Your task to perform on an android device: toggle location history Image 0: 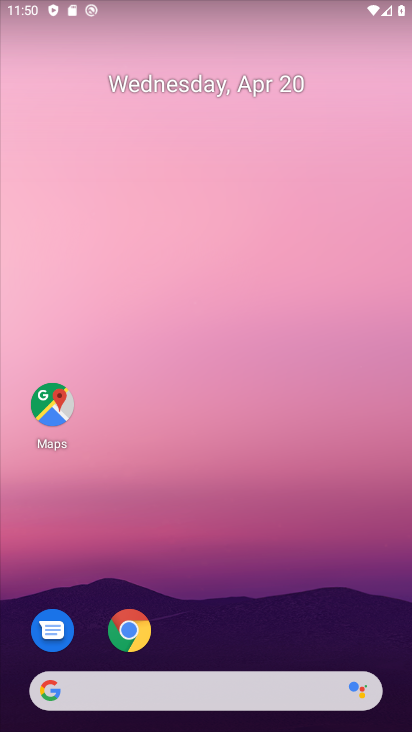
Step 0: drag from (256, 688) to (389, 0)
Your task to perform on an android device: toggle location history Image 1: 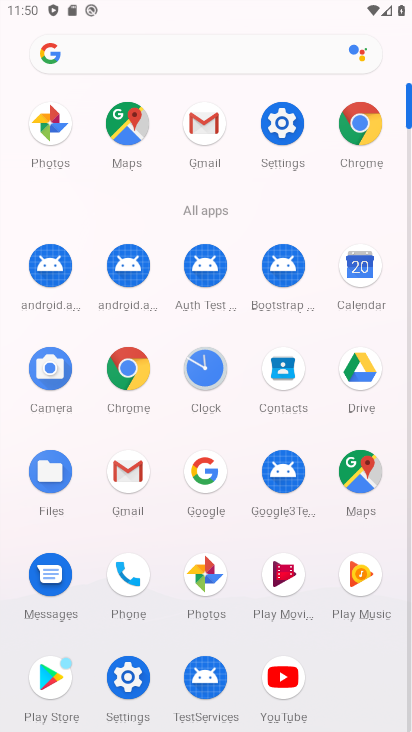
Step 1: click (287, 132)
Your task to perform on an android device: toggle location history Image 2: 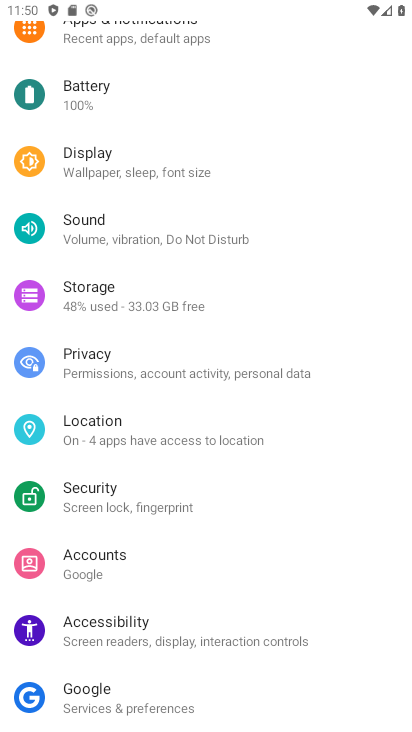
Step 2: click (111, 426)
Your task to perform on an android device: toggle location history Image 3: 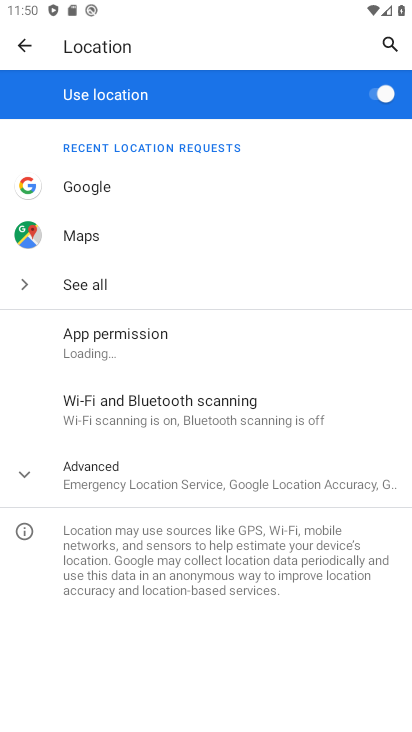
Step 3: click (107, 476)
Your task to perform on an android device: toggle location history Image 4: 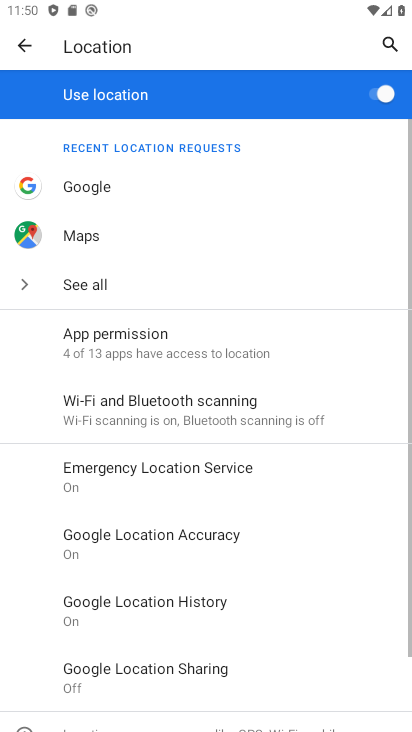
Step 4: click (139, 607)
Your task to perform on an android device: toggle location history Image 5: 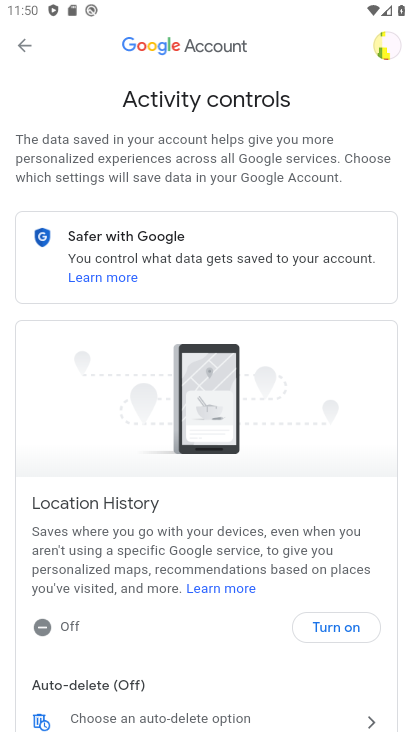
Step 5: click (344, 624)
Your task to perform on an android device: toggle location history Image 6: 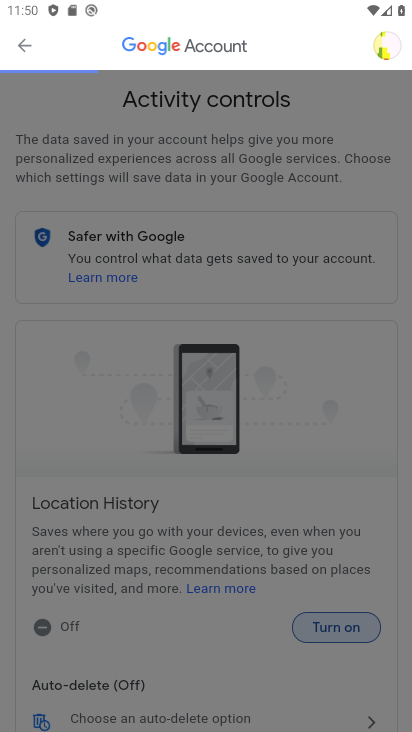
Step 6: click (344, 624)
Your task to perform on an android device: toggle location history Image 7: 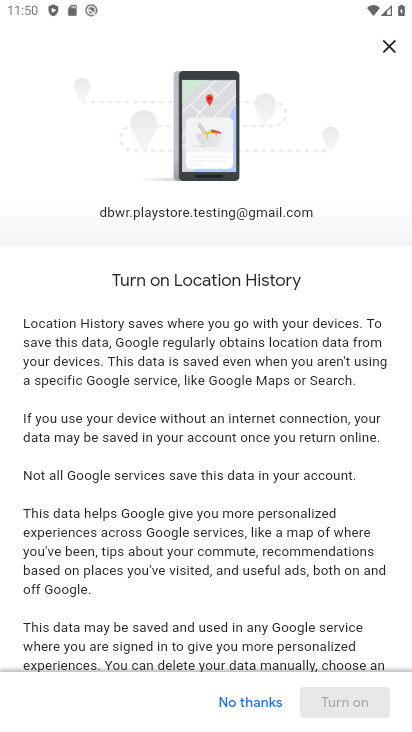
Step 7: drag from (162, 574) to (310, 134)
Your task to perform on an android device: toggle location history Image 8: 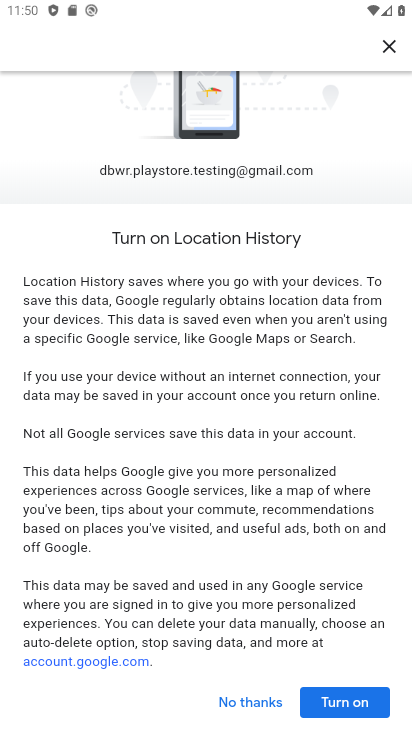
Step 8: click (339, 707)
Your task to perform on an android device: toggle location history Image 9: 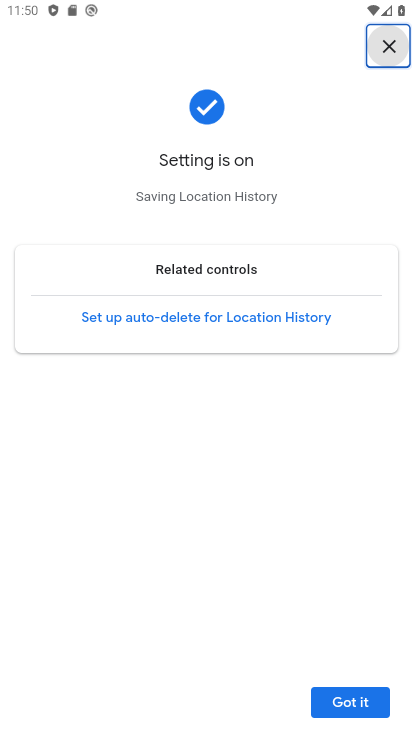
Step 9: click (354, 699)
Your task to perform on an android device: toggle location history Image 10: 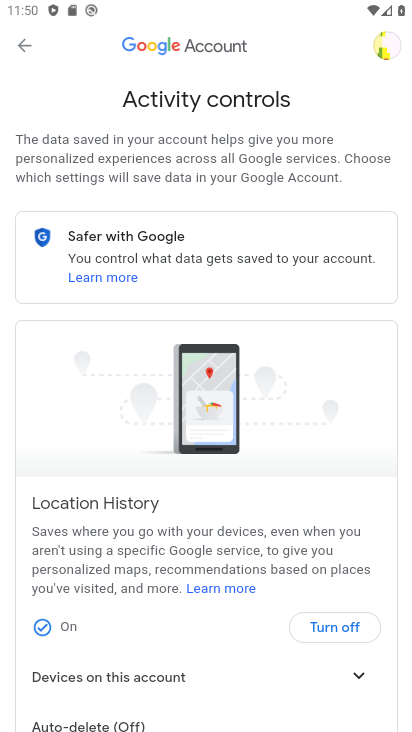
Step 10: task complete